Your task to perform on an android device: Go to Wikipedia Image 0: 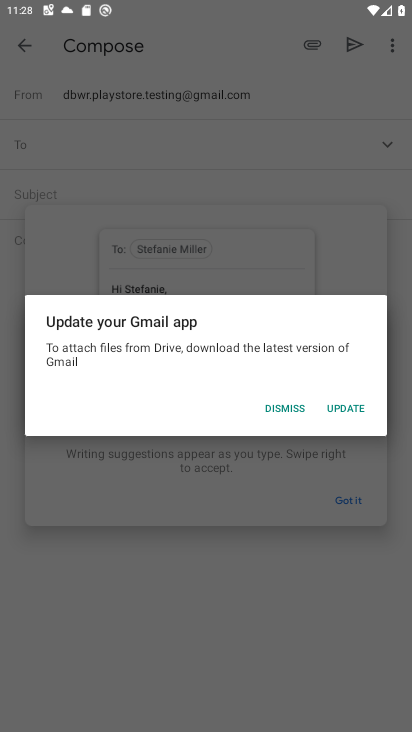
Step 0: press home button
Your task to perform on an android device: Go to Wikipedia Image 1: 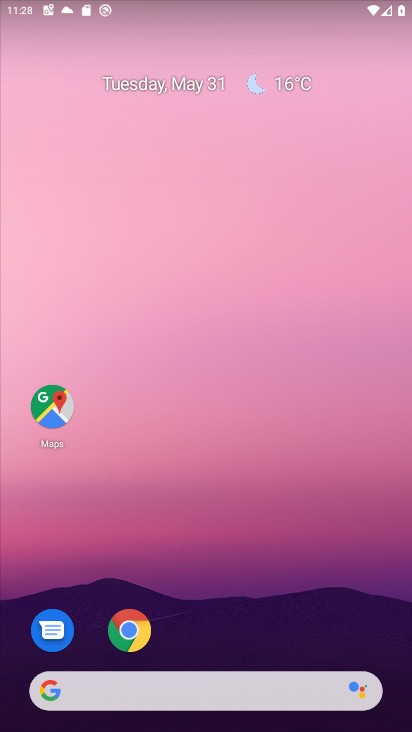
Step 1: drag from (262, 538) to (175, 116)
Your task to perform on an android device: Go to Wikipedia Image 2: 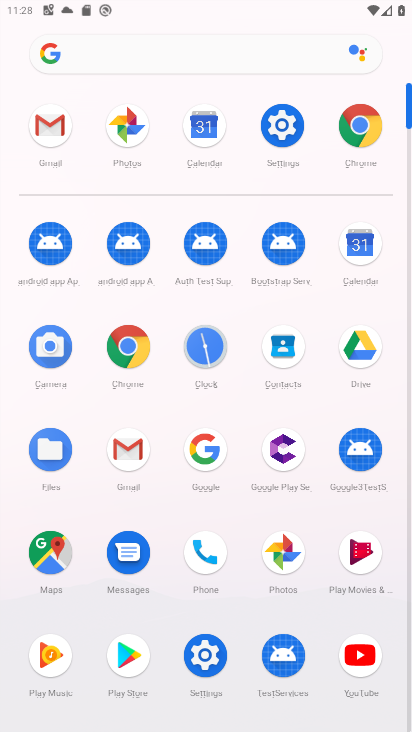
Step 2: click (119, 356)
Your task to perform on an android device: Go to Wikipedia Image 3: 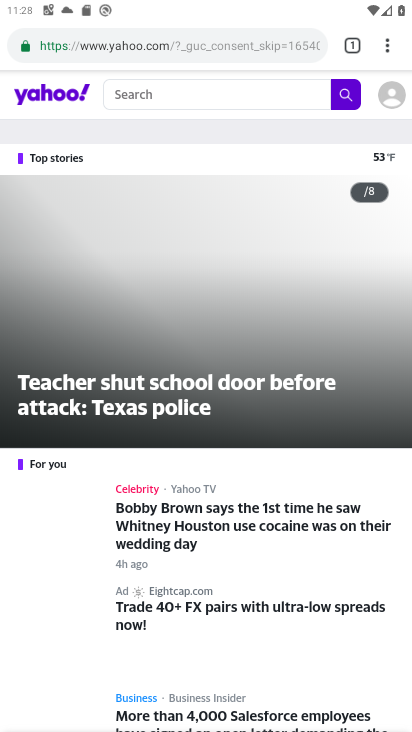
Step 3: click (212, 48)
Your task to perform on an android device: Go to Wikipedia Image 4: 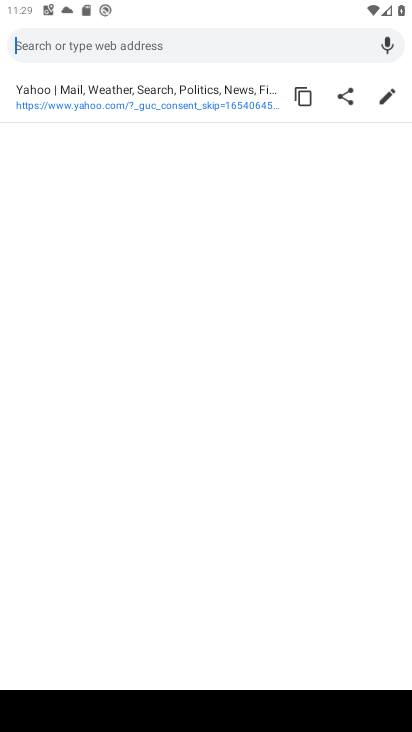
Step 4: type "wikipedia"
Your task to perform on an android device: Go to Wikipedia Image 5: 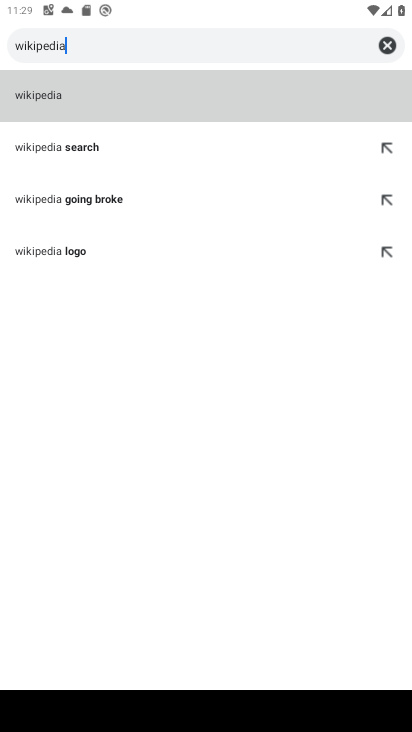
Step 5: click (36, 88)
Your task to perform on an android device: Go to Wikipedia Image 6: 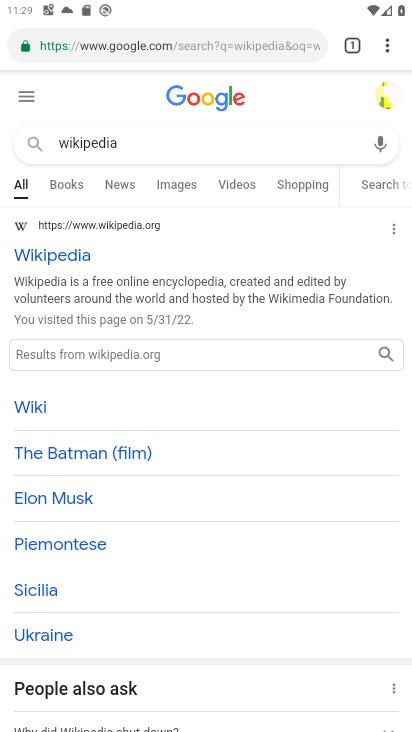
Step 6: click (64, 254)
Your task to perform on an android device: Go to Wikipedia Image 7: 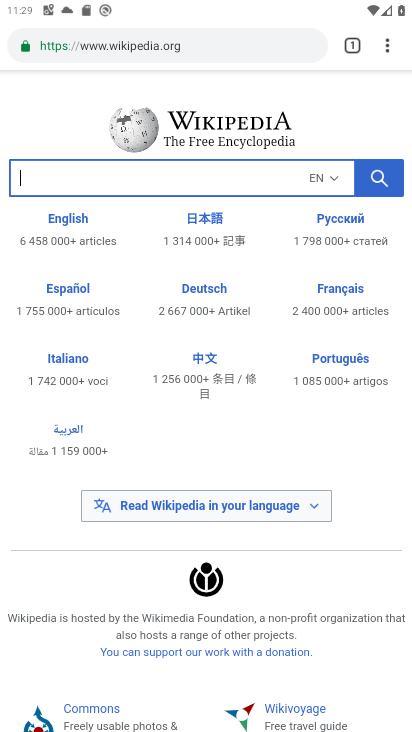
Step 7: task complete